Your task to perform on an android device: Open display settings Image 0: 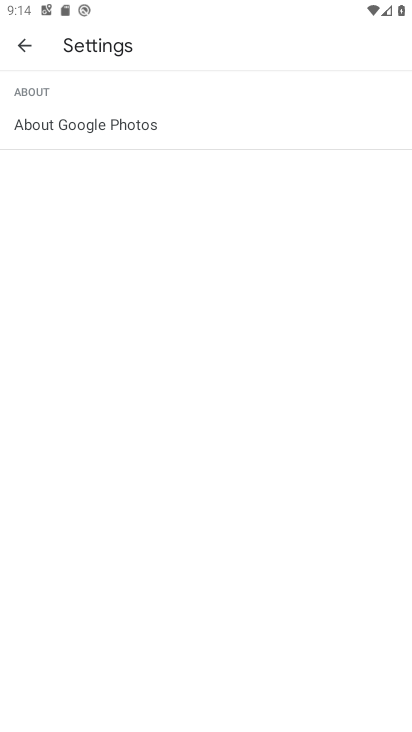
Step 0: press home button
Your task to perform on an android device: Open display settings Image 1: 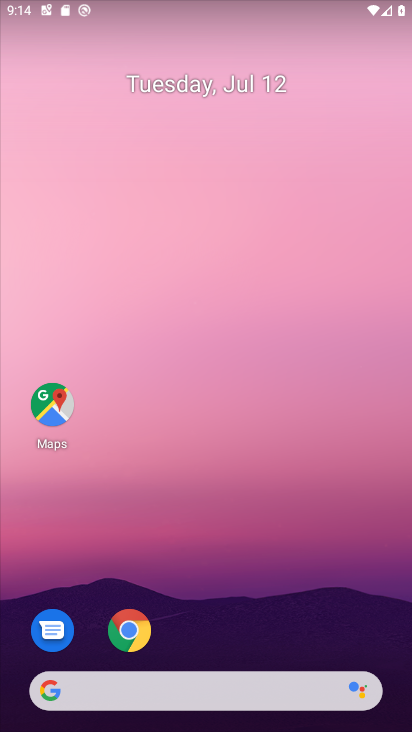
Step 1: drag from (197, 678) to (227, 299)
Your task to perform on an android device: Open display settings Image 2: 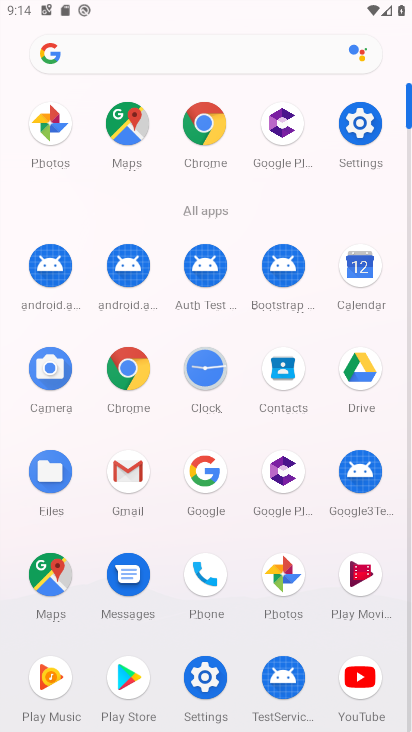
Step 2: click (199, 679)
Your task to perform on an android device: Open display settings Image 3: 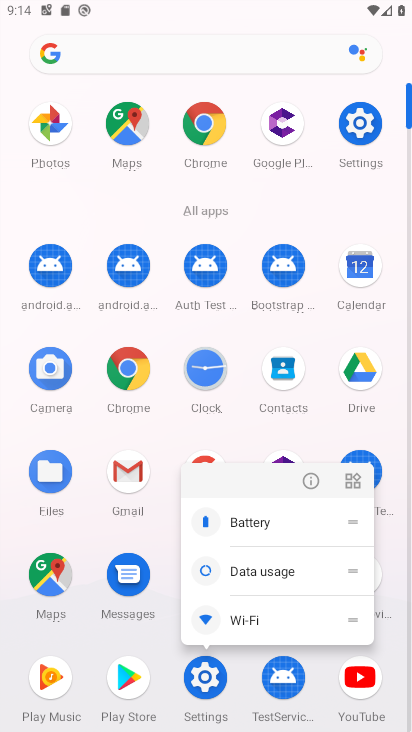
Step 3: click (199, 678)
Your task to perform on an android device: Open display settings Image 4: 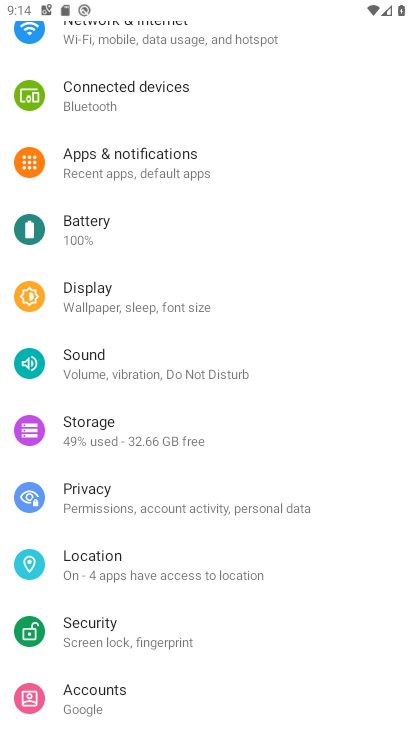
Step 4: click (89, 296)
Your task to perform on an android device: Open display settings Image 5: 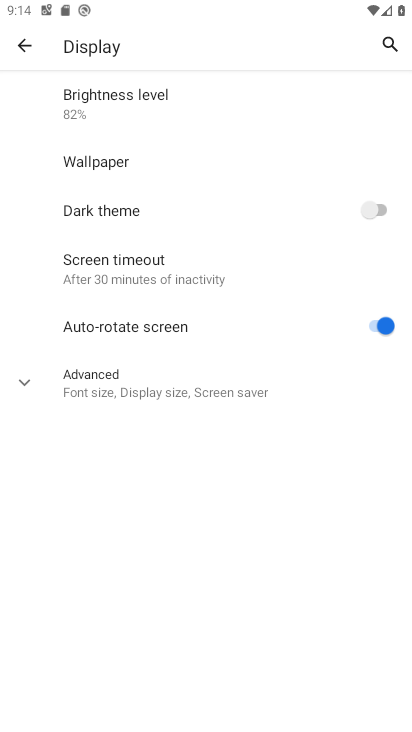
Step 5: task complete